Your task to perform on an android device: Show me productivity apps on the Play Store Image 0: 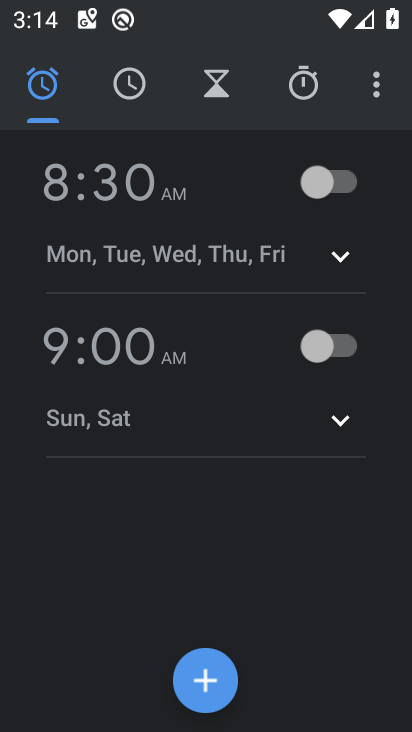
Step 0: press home button
Your task to perform on an android device: Show me productivity apps on the Play Store Image 1: 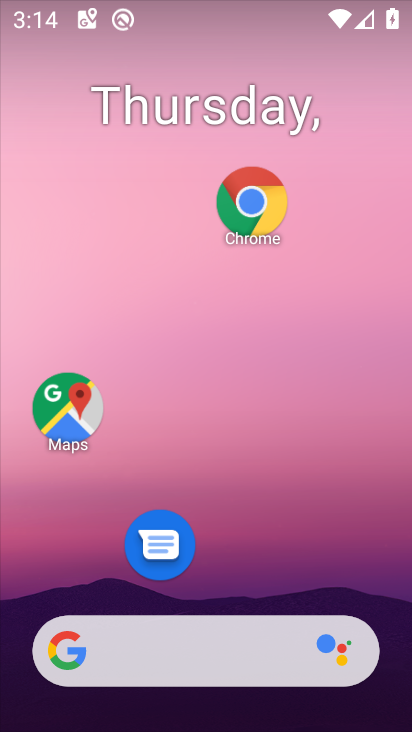
Step 1: drag from (212, 602) to (212, 171)
Your task to perform on an android device: Show me productivity apps on the Play Store Image 2: 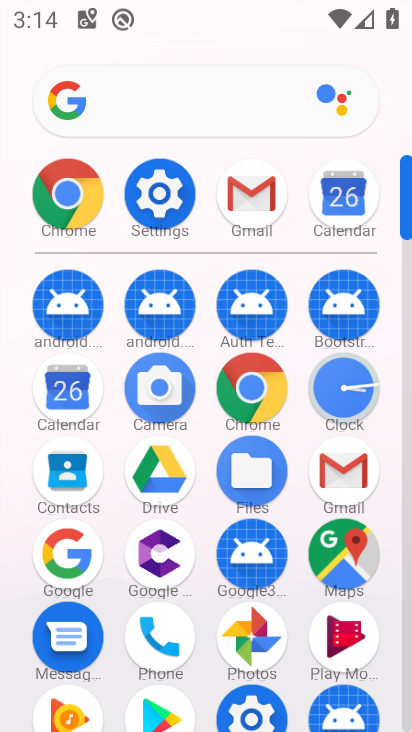
Step 2: click (148, 714)
Your task to perform on an android device: Show me productivity apps on the Play Store Image 3: 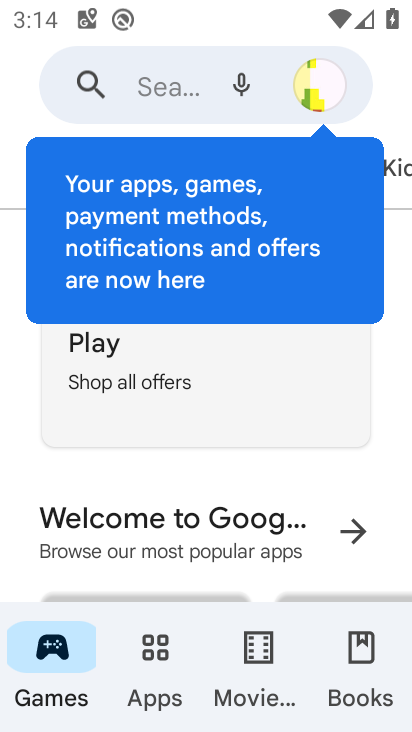
Step 3: click (153, 678)
Your task to perform on an android device: Show me productivity apps on the Play Store Image 4: 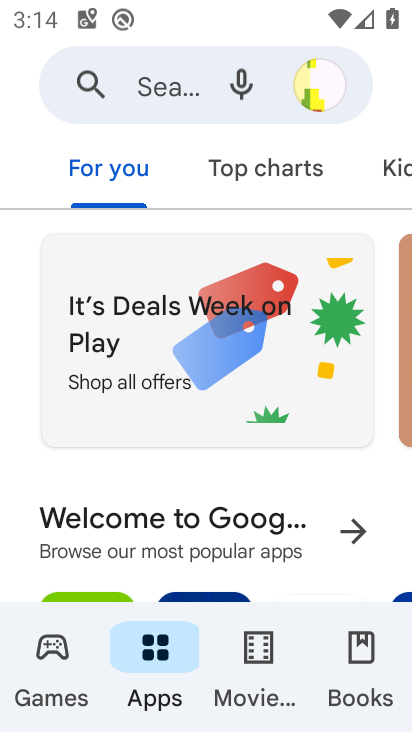
Step 4: task complete